Your task to perform on an android device: delete browsing data in the chrome app Image 0: 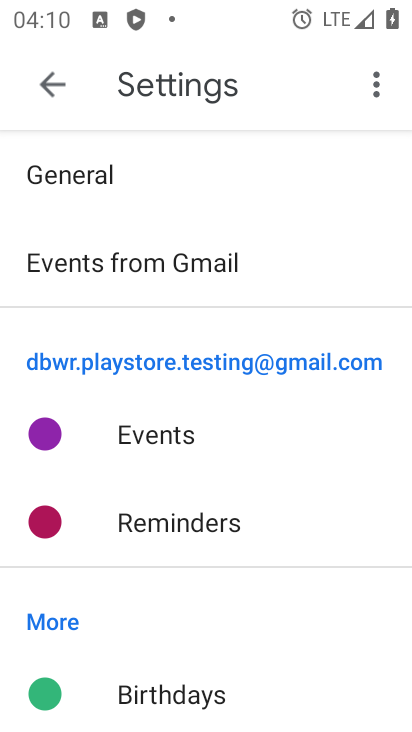
Step 0: press home button
Your task to perform on an android device: delete browsing data in the chrome app Image 1: 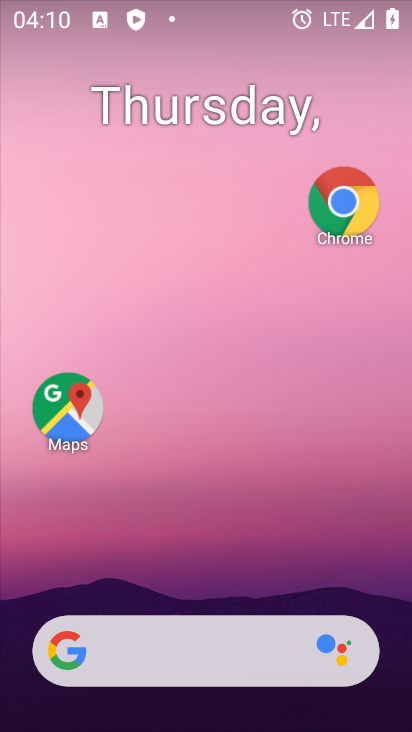
Step 1: drag from (167, 649) to (160, 18)
Your task to perform on an android device: delete browsing data in the chrome app Image 2: 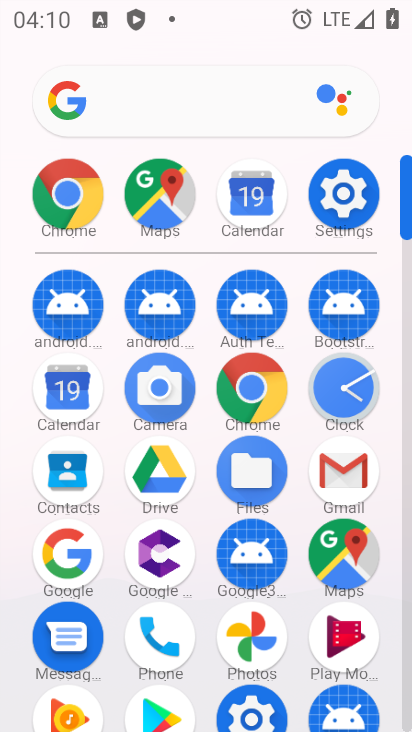
Step 2: click (276, 379)
Your task to perform on an android device: delete browsing data in the chrome app Image 3: 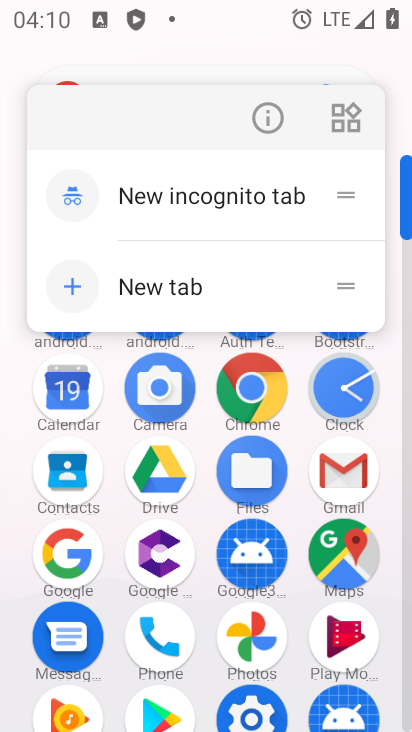
Step 3: click (266, 393)
Your task to perform on an android device: delete browsing data in the chrome app Image 4: 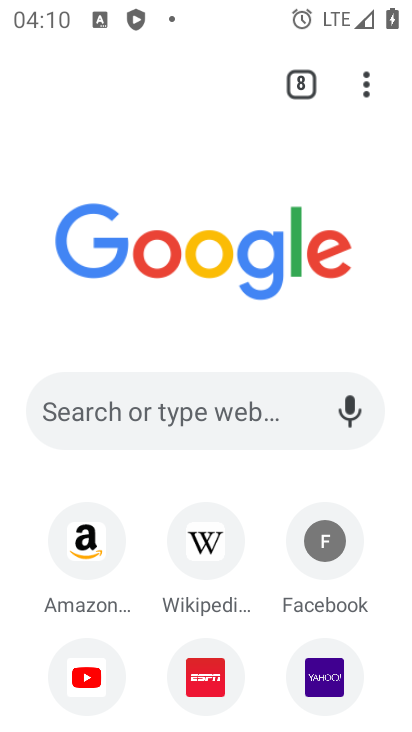
Step 4: drag from (361, 88) to (122, 599)
Your task to perform on an android device: delete browsing data in the chrome app Image 5: 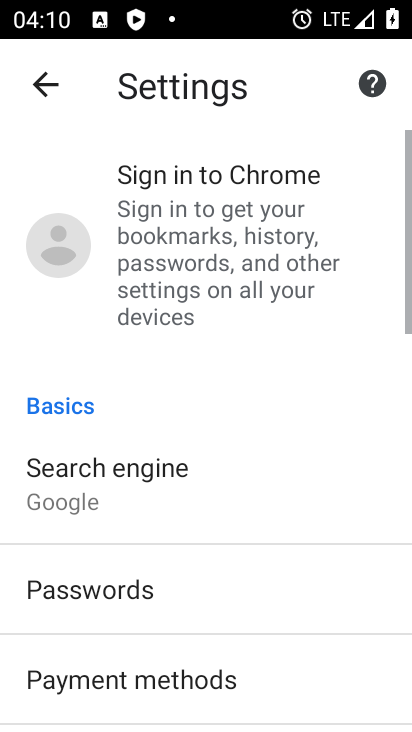
Step 5: drag from (232, 677) to (286, 99)
Your task to perform on an android device: delete browsing data in the chrome app Image 6: 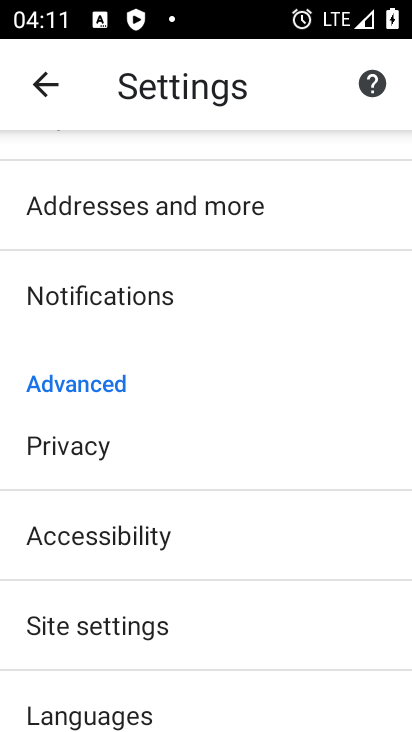
Step 6: click (189, 462)
Your task to perform on an android device: delete browsing data in the chrome app Image 7: 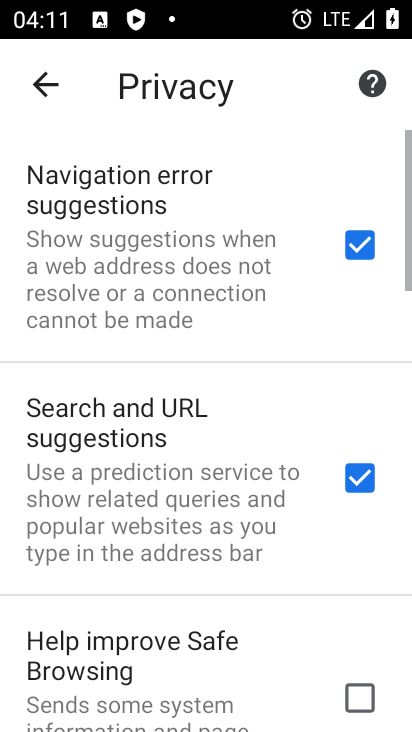
Step 7: drag from (219, 561) to (202, 196)
Your task to perform on an android device: delete browsing data in the chrome app Image 8: 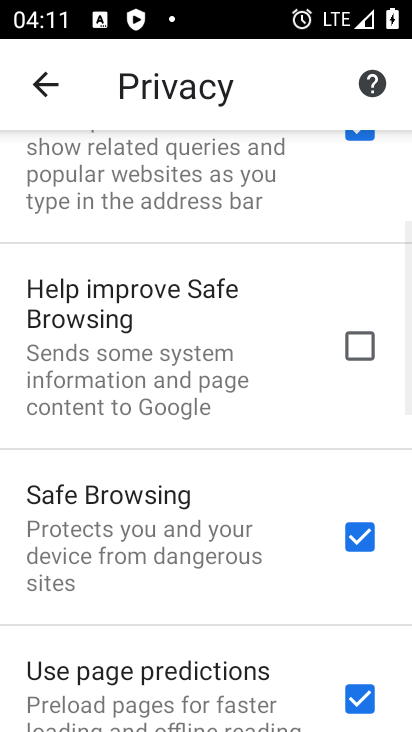
Step 8: drag from (166, 658) to (193, 299)
Your task to perform on an android device: delete browsing data in the chrome app Image 9: 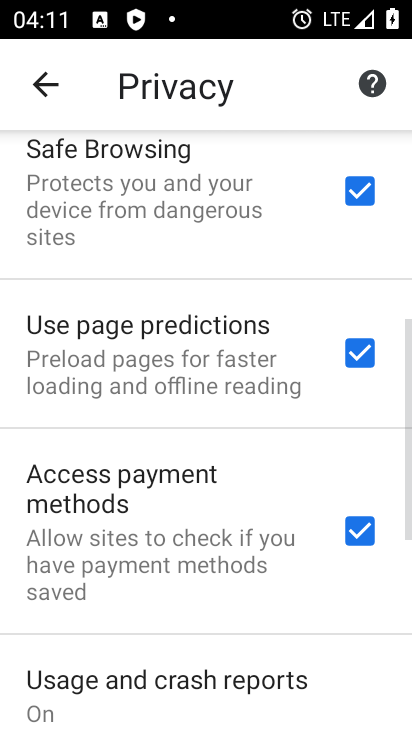
Step 9: drag from (240, 627) to (207, 309)
Your task to perform on an android device: delete browsing data in the chrome app Image 10: 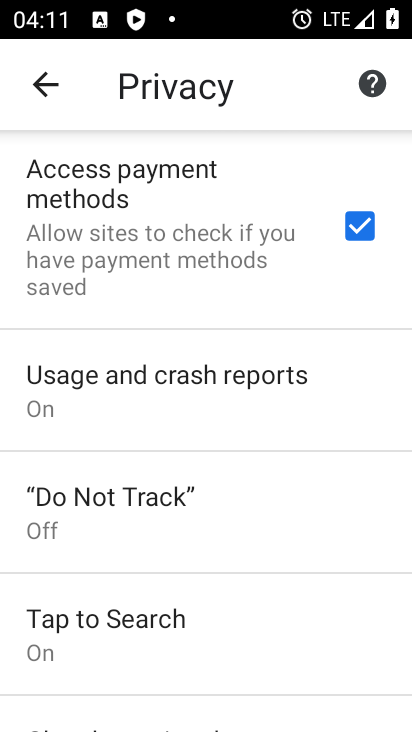
Step 10: drag from (187, 683) to (192, 160)
Your task to perform on an android device: delete browsing data in the chrome app Image 11: 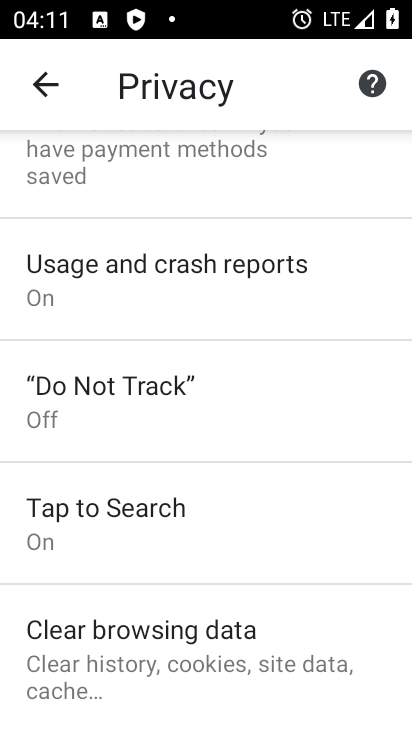
Step 11: click (212, 641)
Your task to perform on an android device: delete browsing data in the chrome app Image 12: 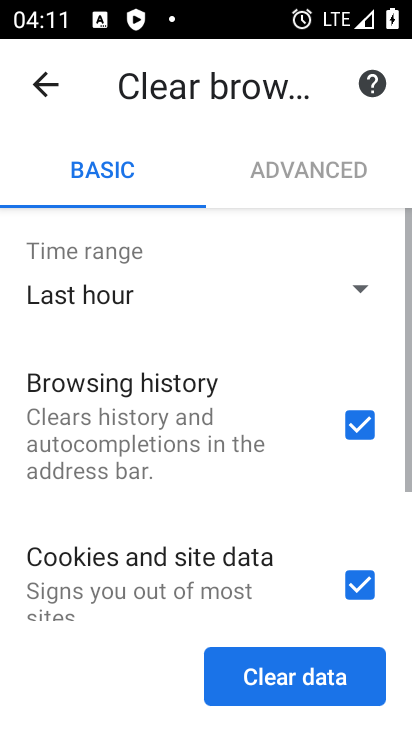
Step 12: click (336, 649)
Your task to perform on an android device: delete browsing data in the chrome app Image 13: 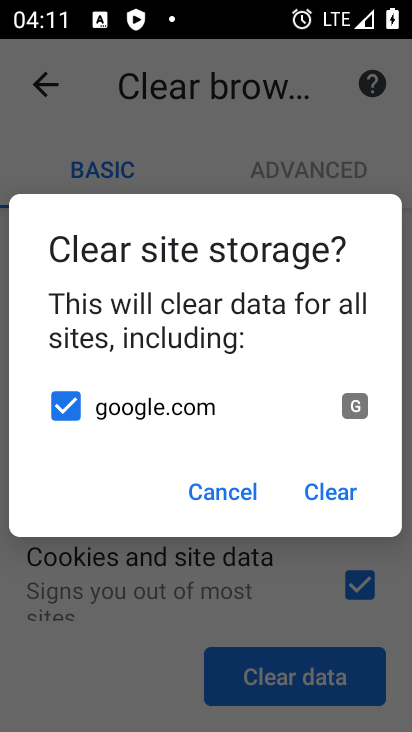
Step 13: click (346, 496)
Your task to perform on an android device: delete browsing data in the chrome app Image 14: 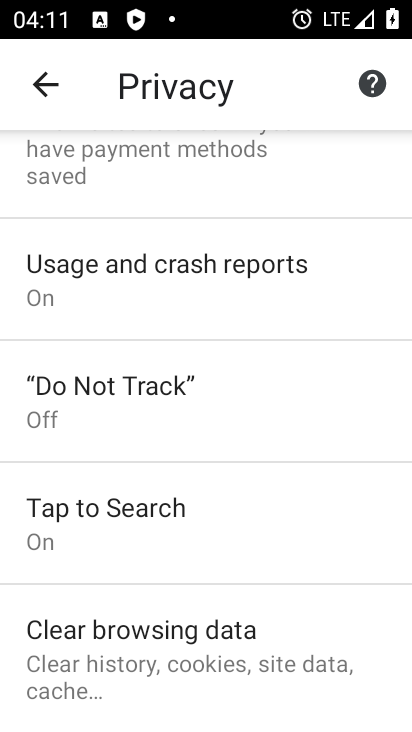
Step 14: click (257, 602)
Your task to perform on an android device: delete browsing data in the chrome app Image 15: 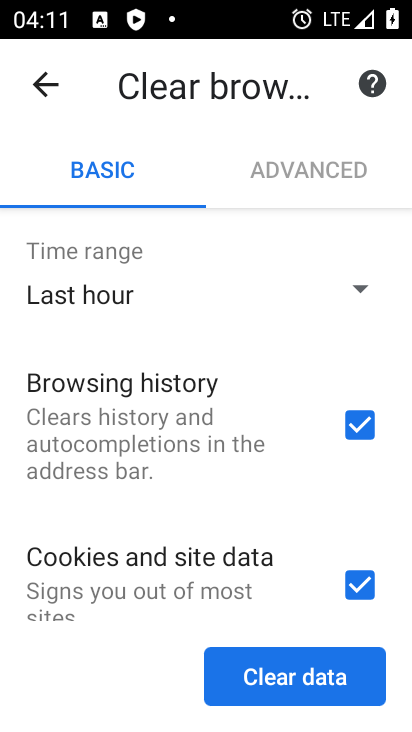
Step 15: click (318, 683)
Your task to perform on an android device: delete browsing data in the chrome app Image 16: 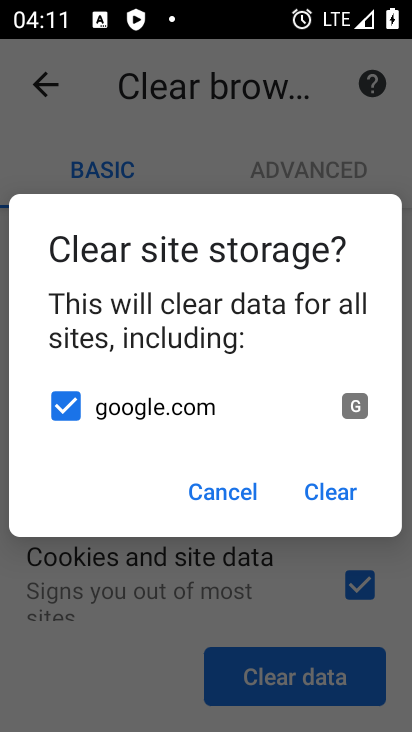
Step 16: click (344, 499)
Your task to perform on an android device: delete browsing data in the chrome app Image 17: 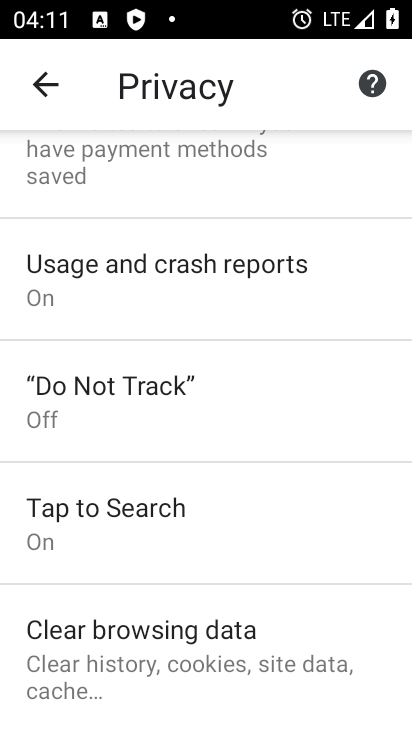
Step 17: task complete